Your task to perform on an android device: What is the recent news? Image 0: 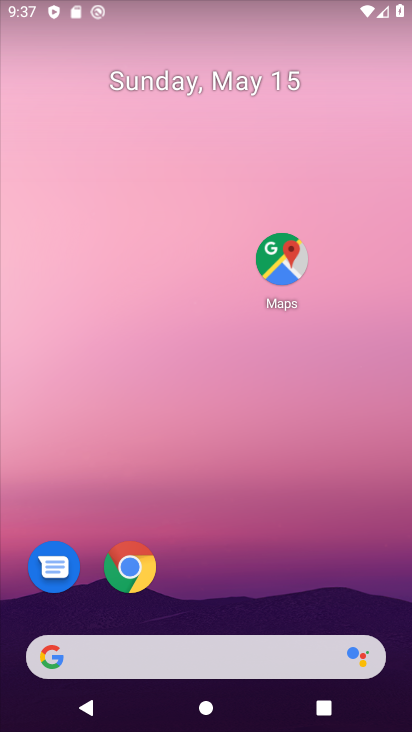
Step 0: drag from (214, 586) to (201, 139)
Your task to perform on an android device: What is the recent news? Image 1: 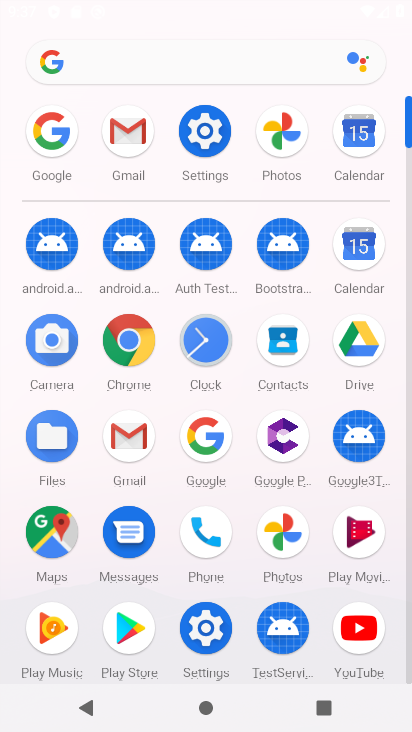
Step 1: click (209, 432)
Your task to perform on an android device: What is the recent news? Image 2: 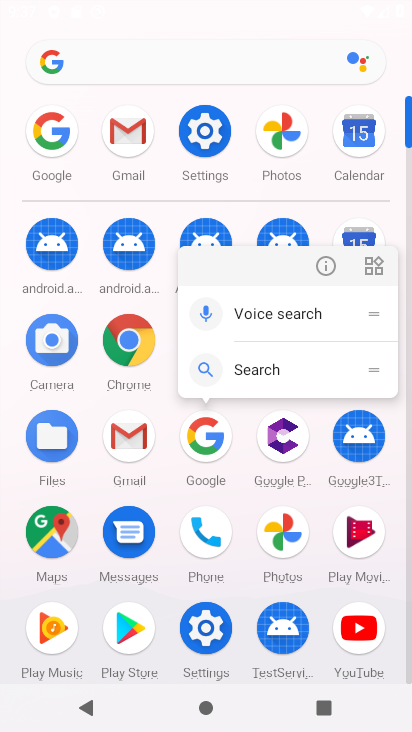
Step 2: click (200, 444)
Your task to perform on an android device: What is the recent news? Image 3: 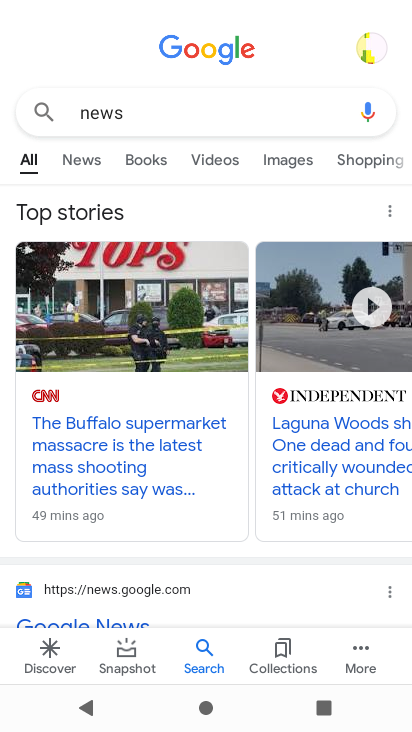
Step 3: click (190, 111)
Your task to perform on an android device: What is the recent news? Image 4: 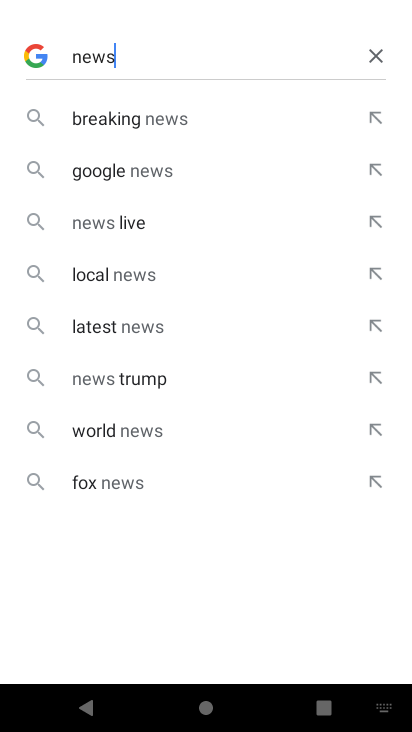
Step 4: click (375, 63)
Your task to perform on an android device: What is the recent news? Image 5: 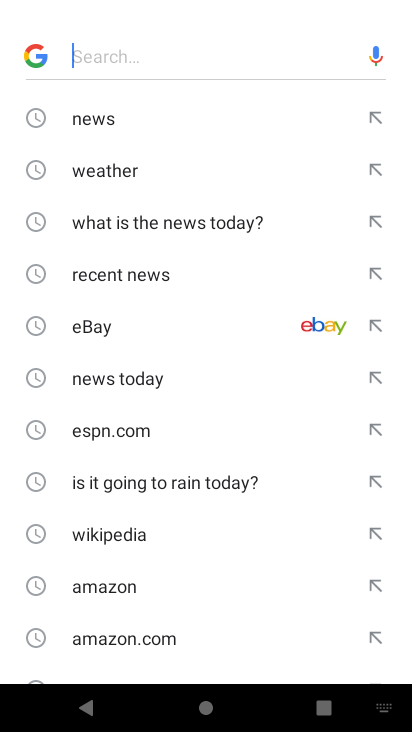
Step 5: click (130, 271)
Your task to perform on an android device: What is the recent news? Image 6: 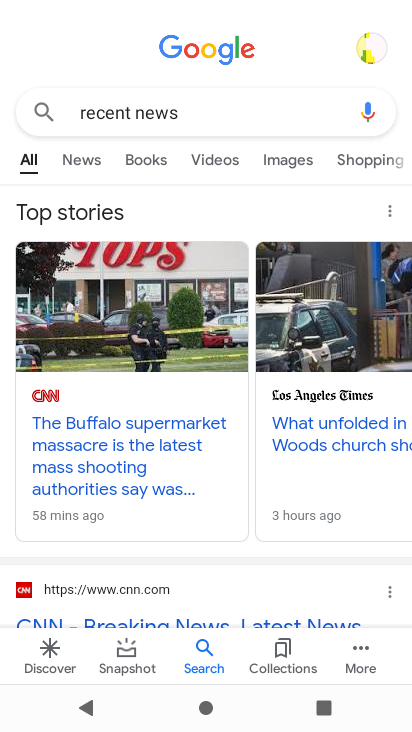
Step 6: task complete